Your task to perform on an android device: install app "DuckDuckGo Privacy Browser" Image 0: 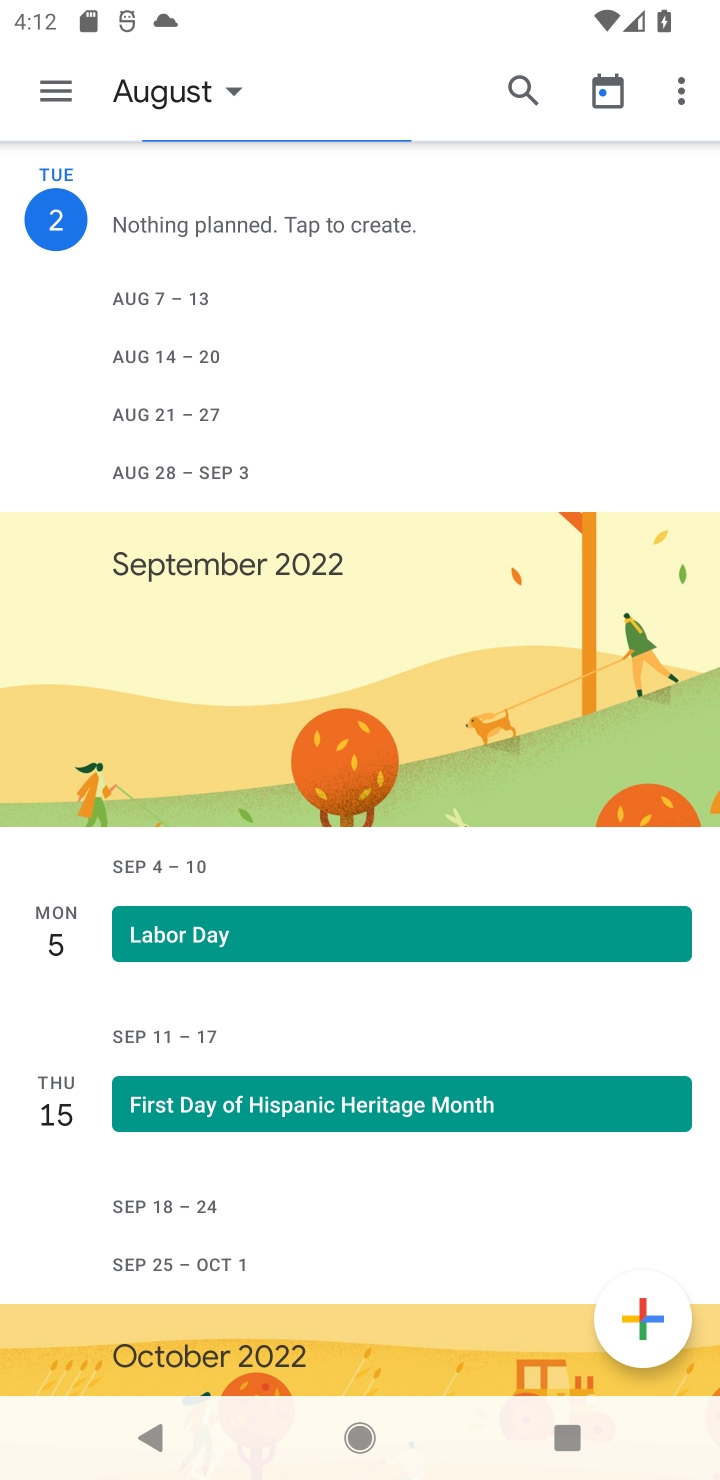
Step 0: press home button
Your task to perform on an android device: install app "DuckDuckGo Privacy Browser" Image 1: 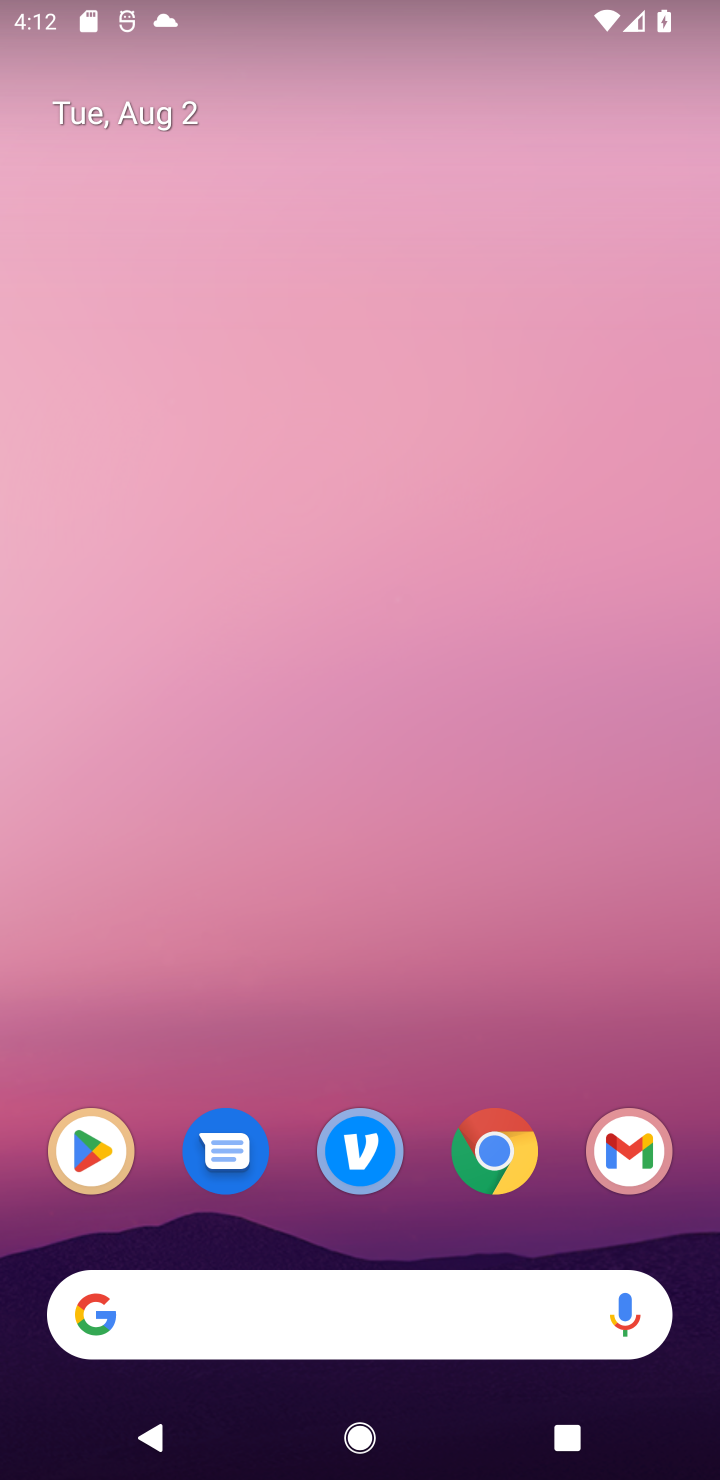
Step 1: drag from (411, 697) to (431, 152)
Your task to perform on an android device: install app "DuckDuckGo Privacy Browser" Image 2: 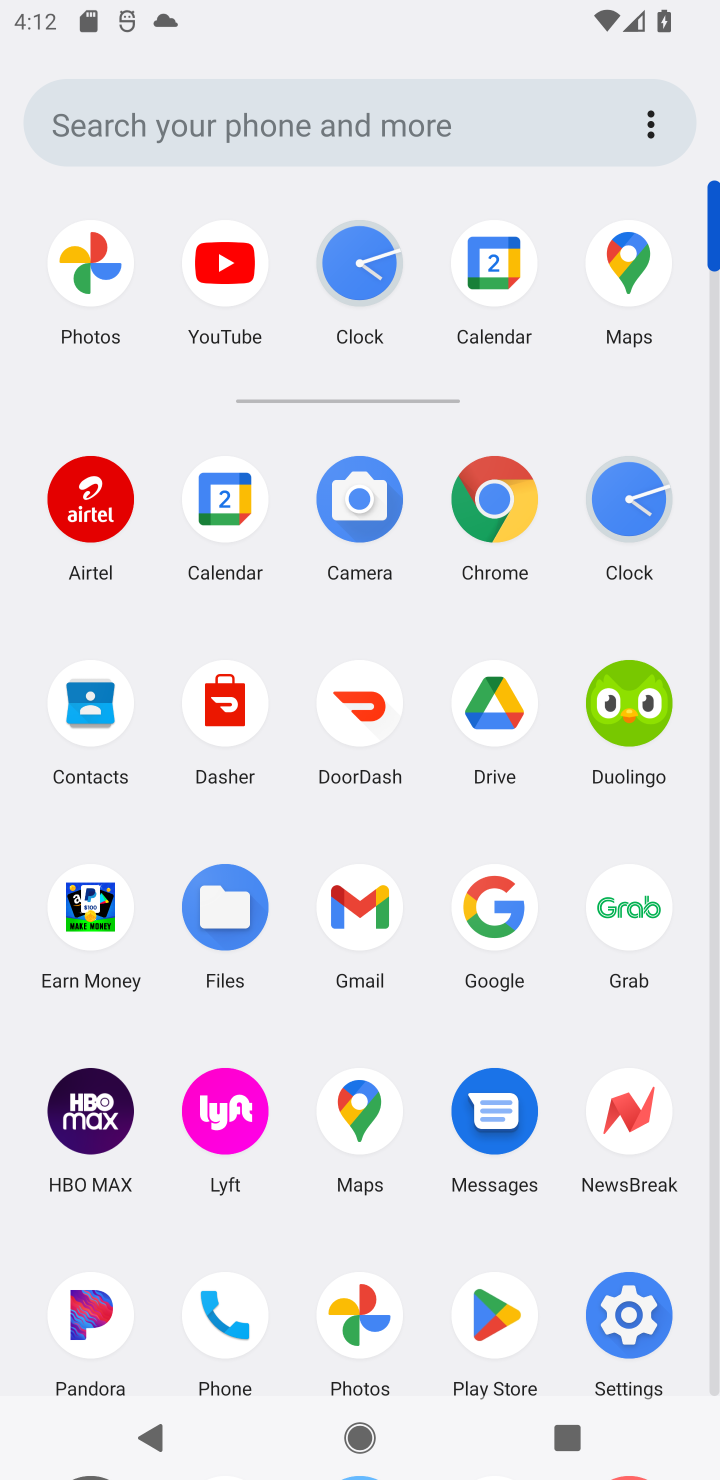
Step 2: drag from (270, 1116) to (400, 325)
Your task to perform on an android device: install app "DuckDuckGo Privacy Browser" Image 3: 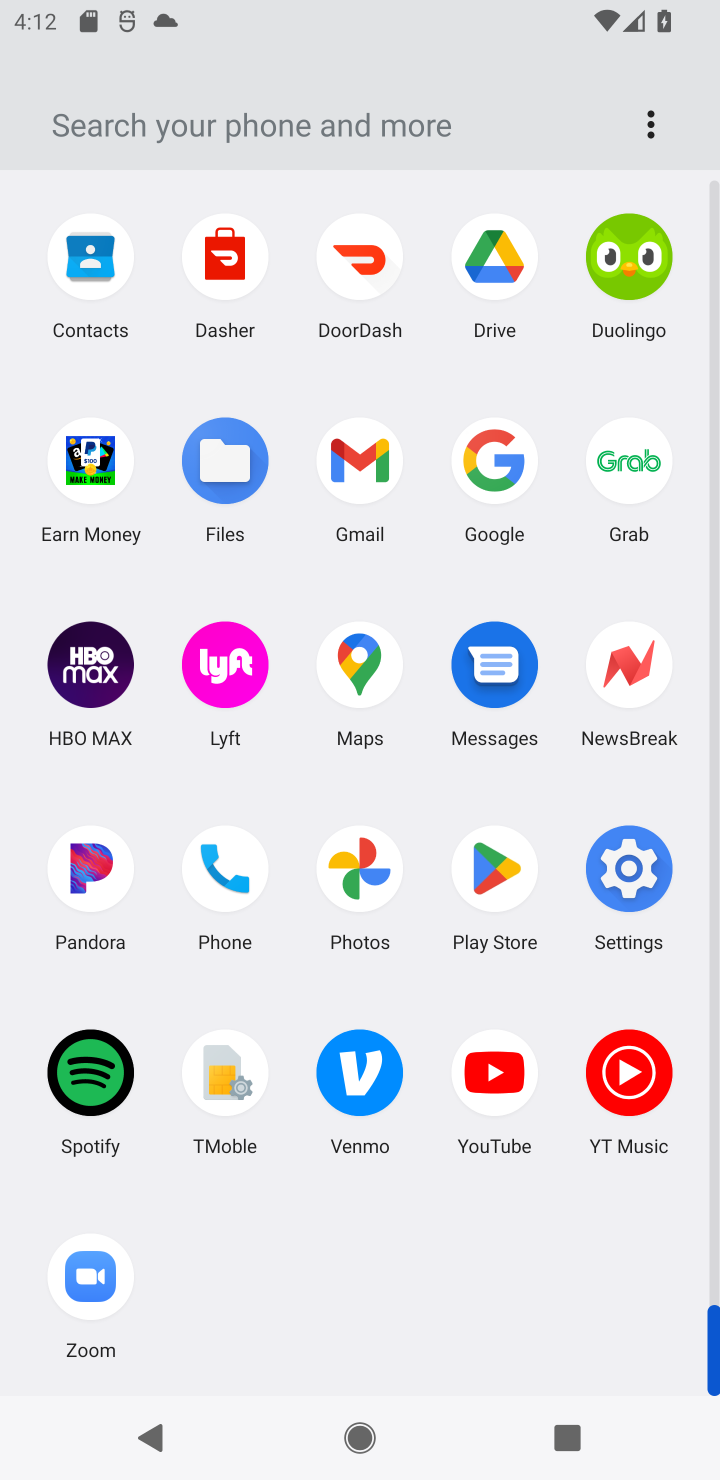
Step 3: click (490, 894)
Your task to perform on an android device: install app "DuckDuckGo Privacy Browser" Image 4: 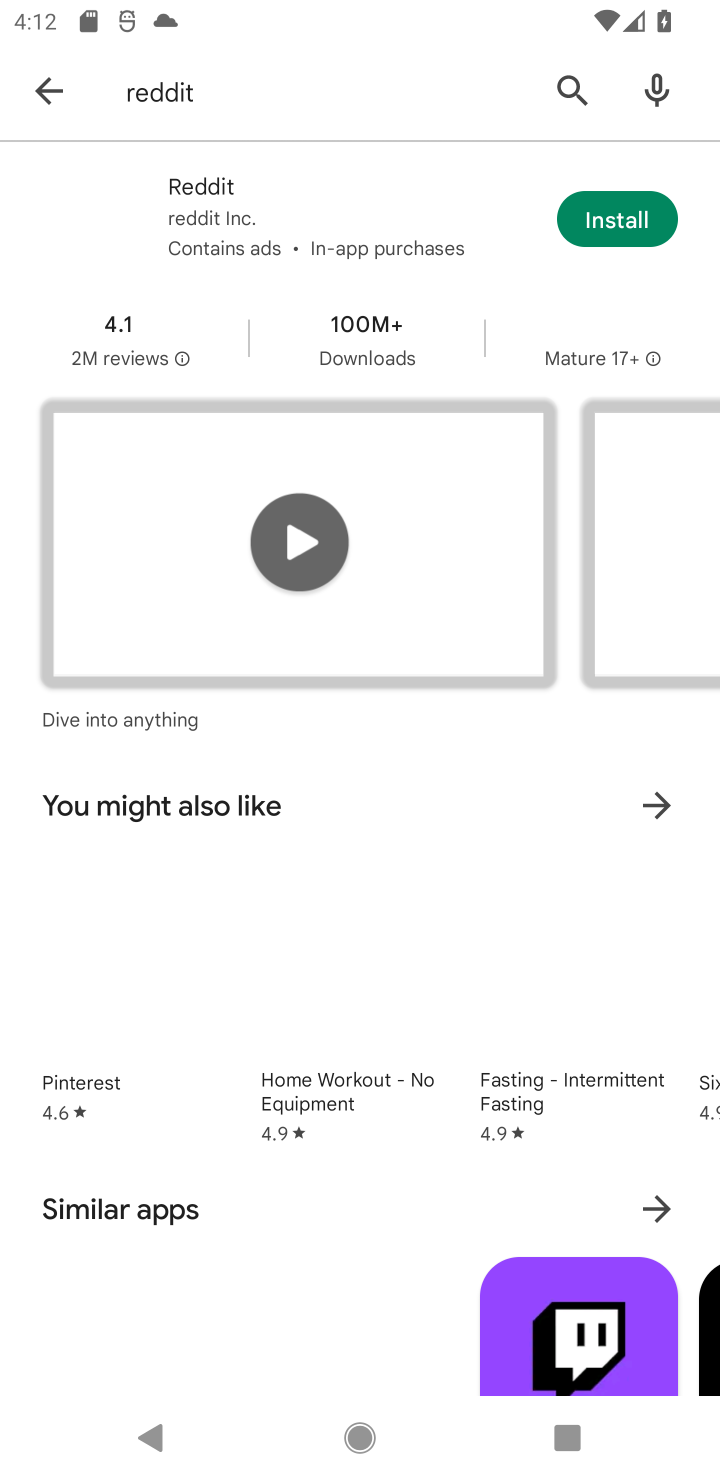
Step 4: click (31, 60)
Your task to perform on an android device: install app "DuckDuckGo Privacy Browser" Image 5: 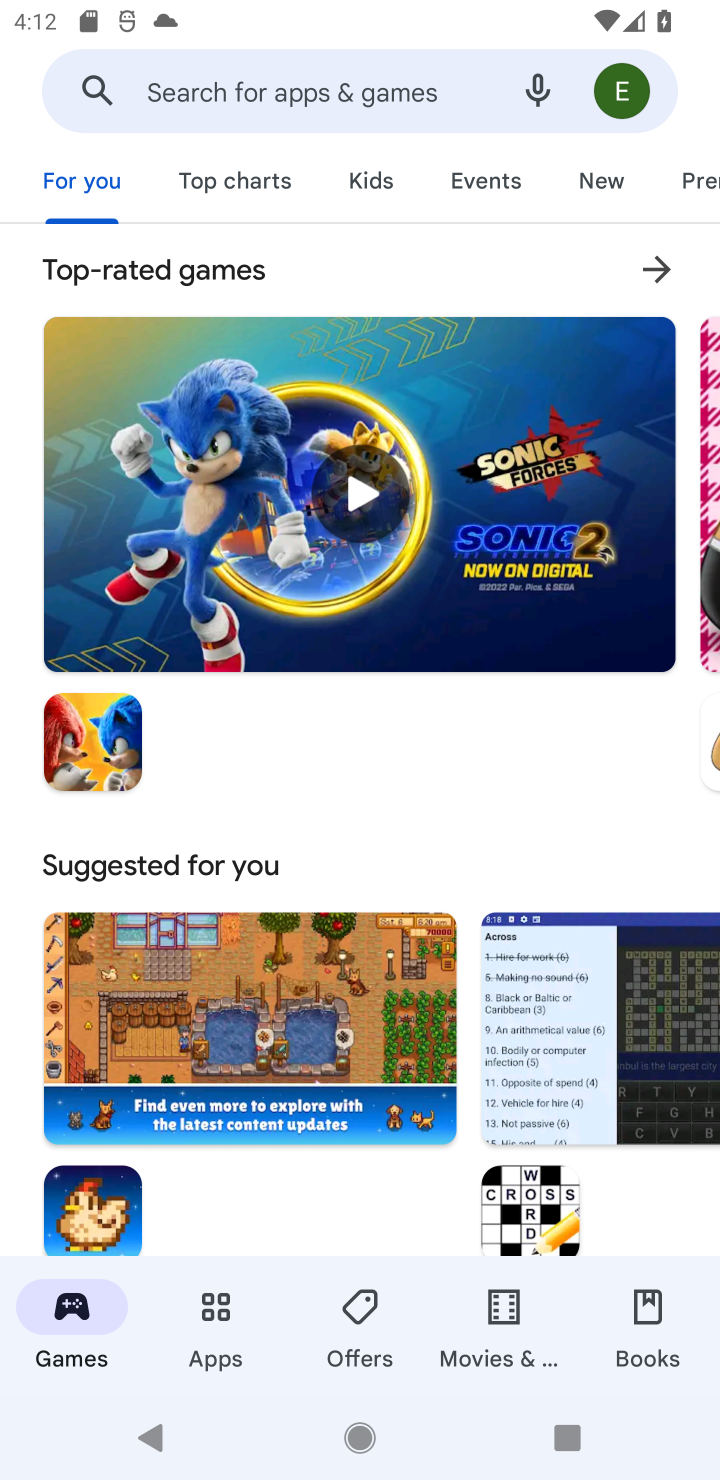
Step 5: click (178, 81)
Your task to perform on an android device: install app "DuckDuckGo Privacy Browser" Image 6: 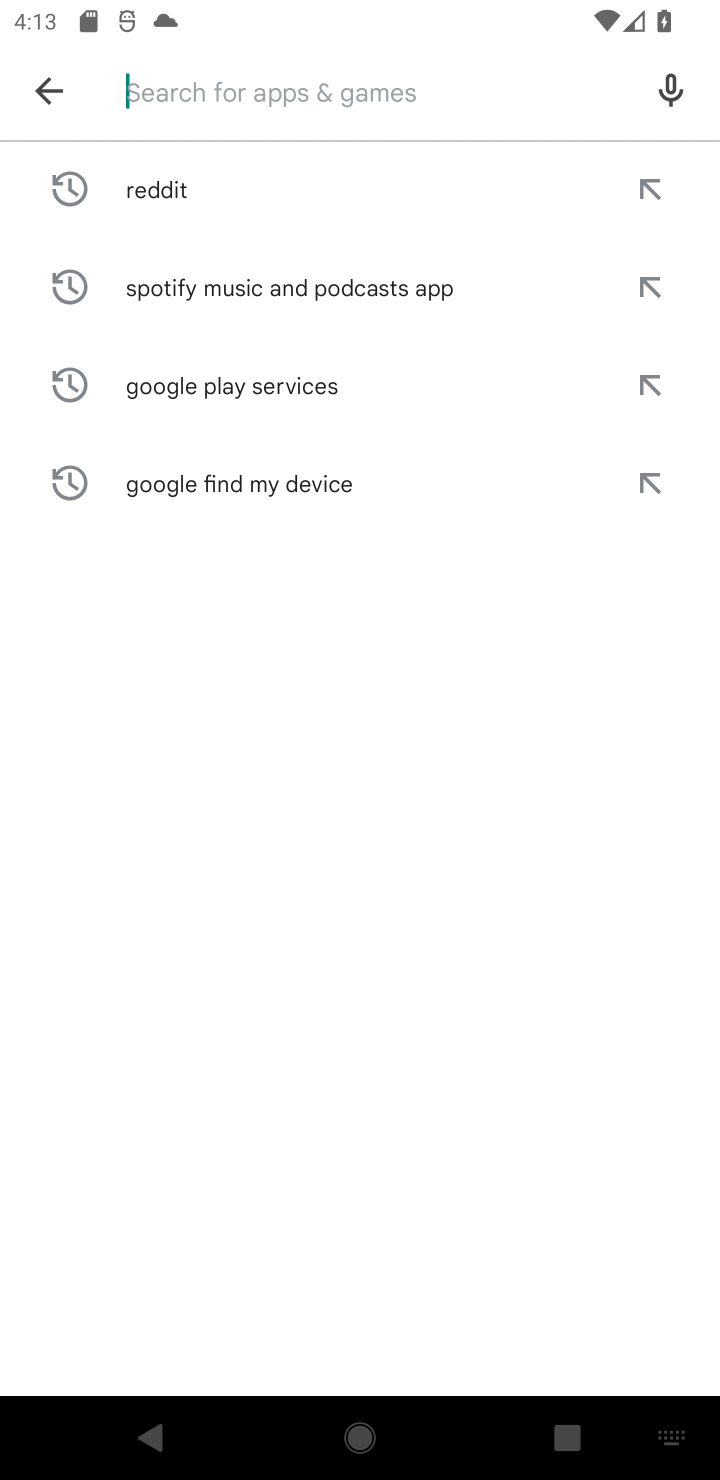
Step 6: type "DuckDuckGo Privacy Browser"
Your task to perform on an android device: install app "DuckDuckGo Privacy Browser" Image 7: 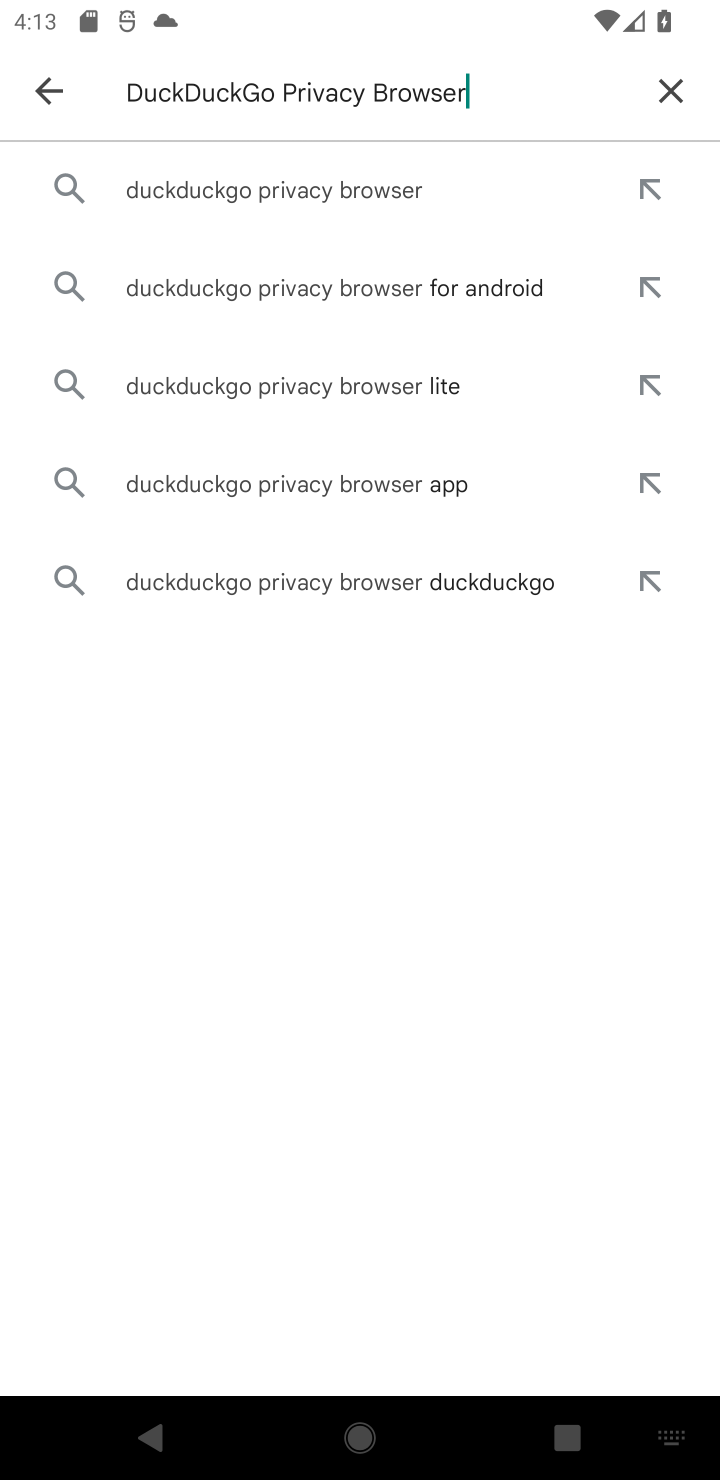
Step 7: click (312, 188)
Your task to perform on an android device: install app "DuckDuckGo Privacy Browser" Image 8: 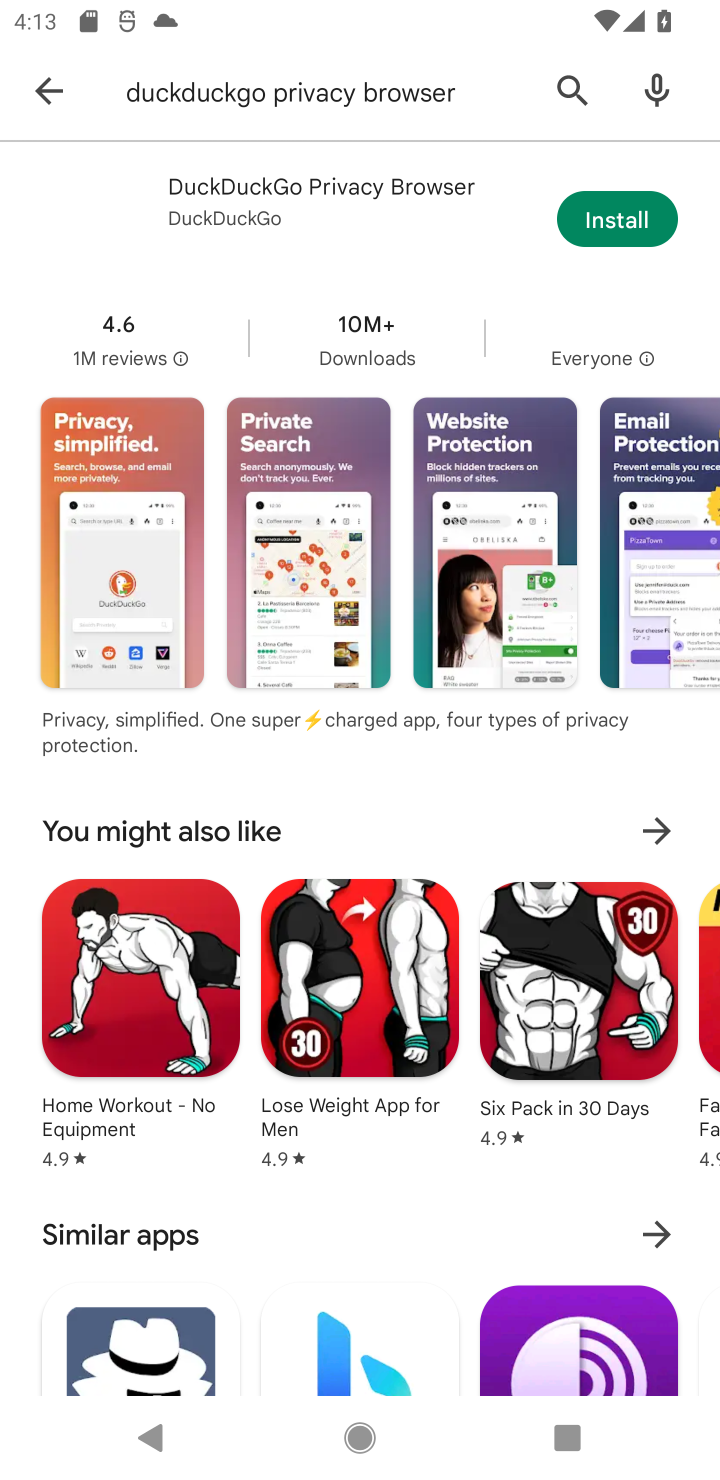
Step 8: click (595, 220)
Your task to perform on an android device: install app "DuckDuckGo Privacy Browser" Image 9: 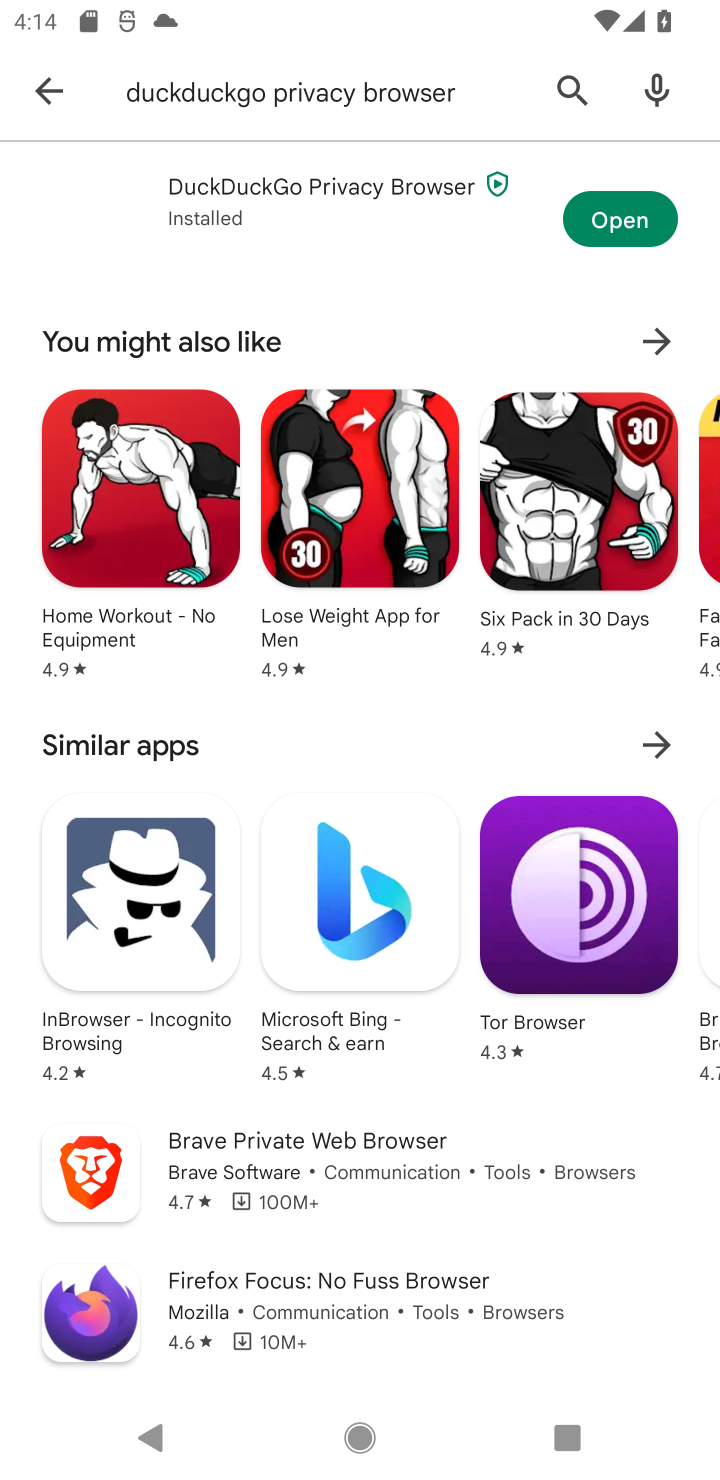
Step 9: task complete